Your task to perform on an android device: Open accessibility settings Image 0: 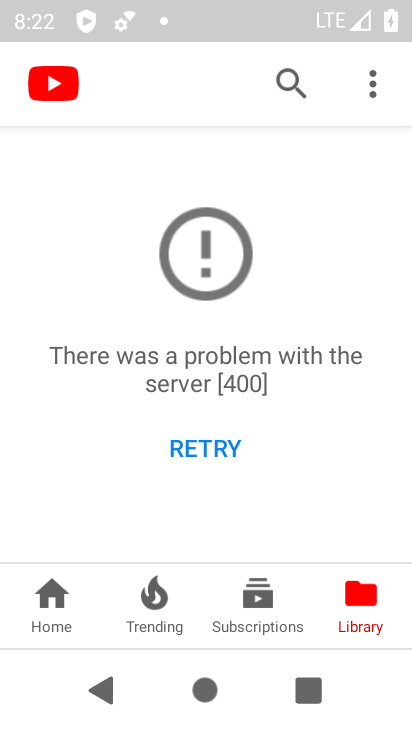
Step 0: press home button
Your task to perform on an android device: Open accessibility settings Image 1: 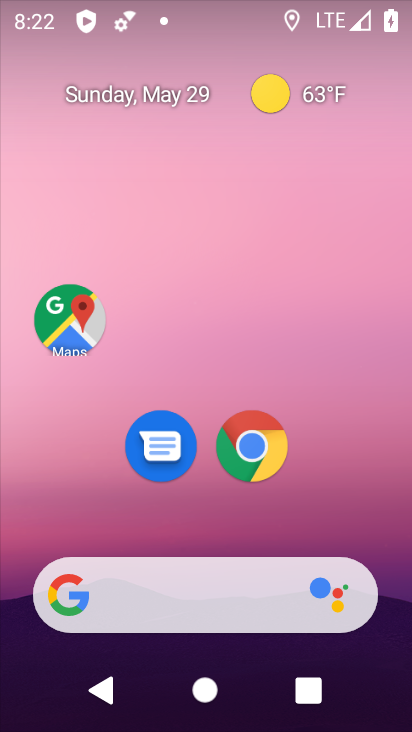
Step 1: drag from (190, 527) to (206, 116)
Your task to perform on an android device: Open accessibility settings Image 2: 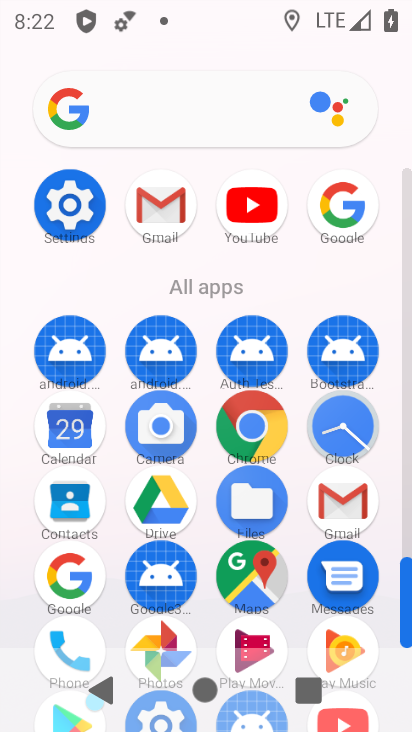
Step 2: click (47, 231)
Your task to perform on an android device: Open accessibility settings Image 3: 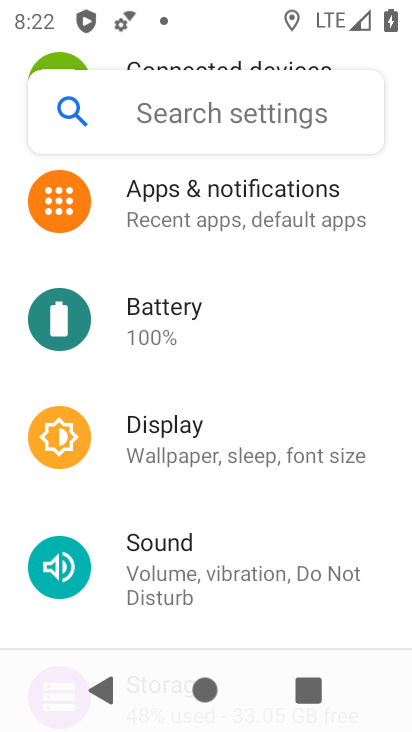
Step 3: drag from (260, 523) to (243, 182)
Your task to perform on an android device: Open accessibility settings Image 4: 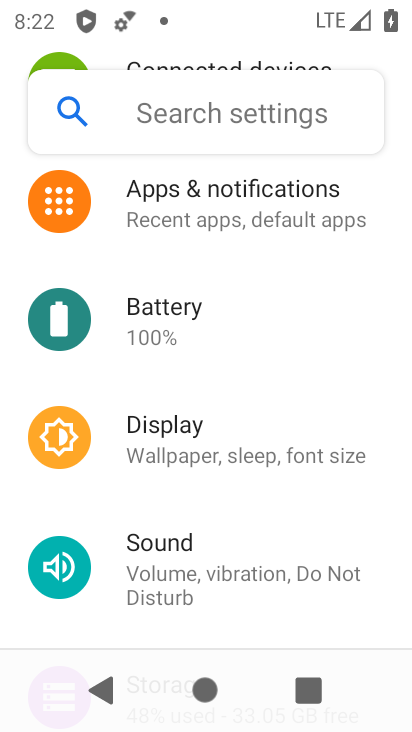
Step 4: drag from (235, 308) to (245, 515)
Your task to perform on an android device: Open accessibility settings Image 5: 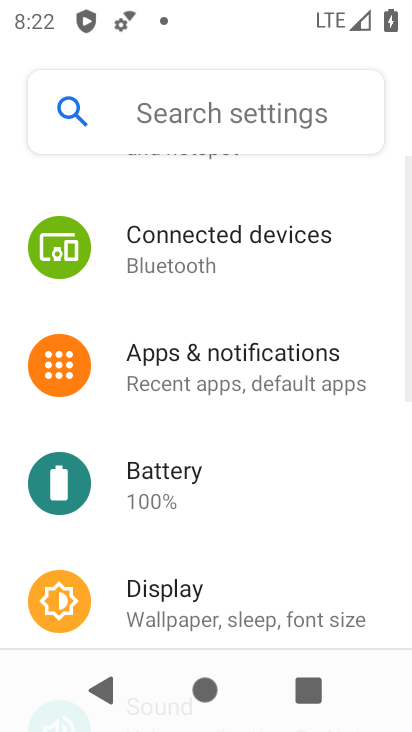
Step 5: drag from (216, 277) to (242, 139)
Your task to perform on an android device: Open accessibility settings Image 6: 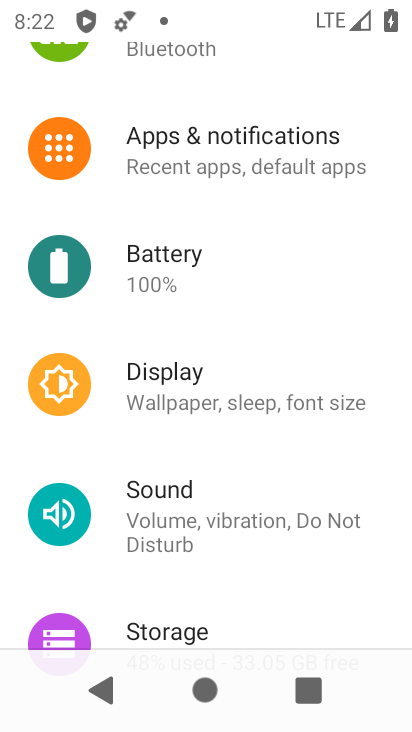
Step 6: drag from (229, 541) to (241, 215)
Your task to perform on an android device: Open accessibility settings Image 7: 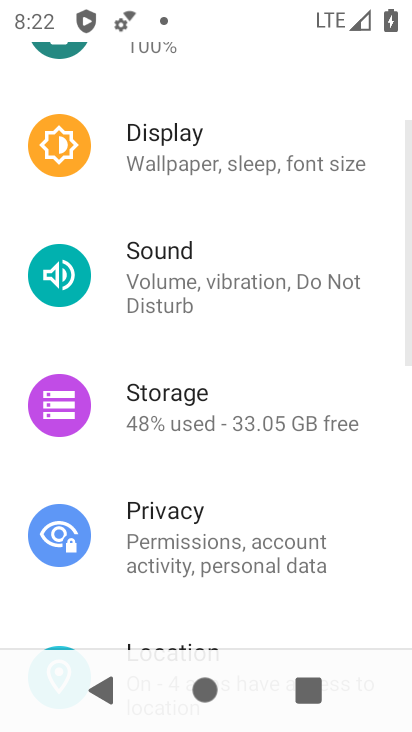
Step 7: drag from (227, 516) to (248, 327)
Your task to perform on an android device: Open accessibility settings Image 8: 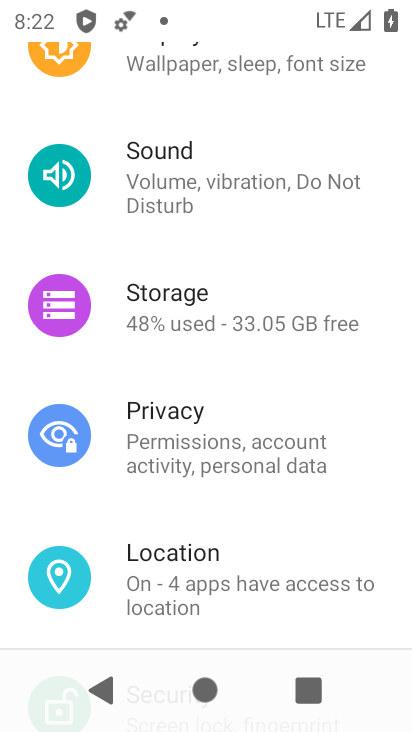
Step 8: drag from (262, 455) to (271, 207)
Your task to perform on an android device: Open accessibility settings Image 9: 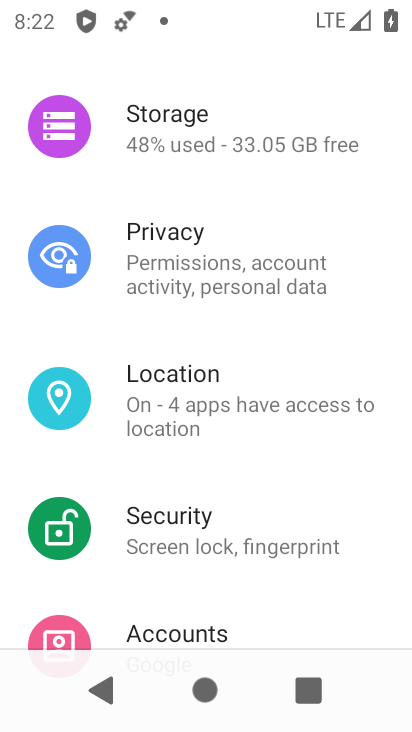
Step 9: drag from (270, 491) to (276, 208)
Your task to perform on an android device: Open accessibility settings Image 10: 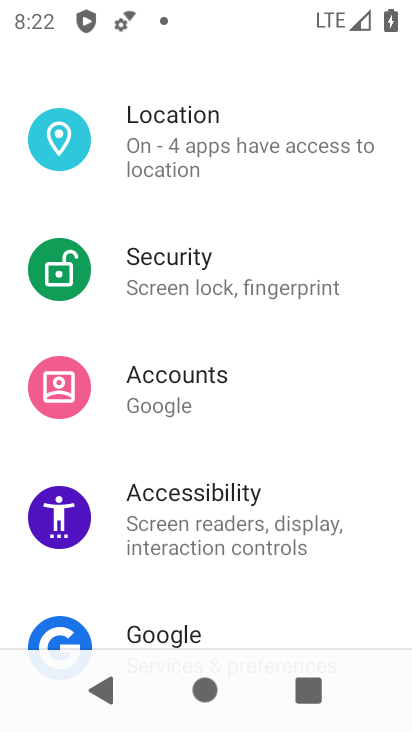
Step 10: click (235, 489)
Your task to perform on an android device: Open accessibility settings Image 11: 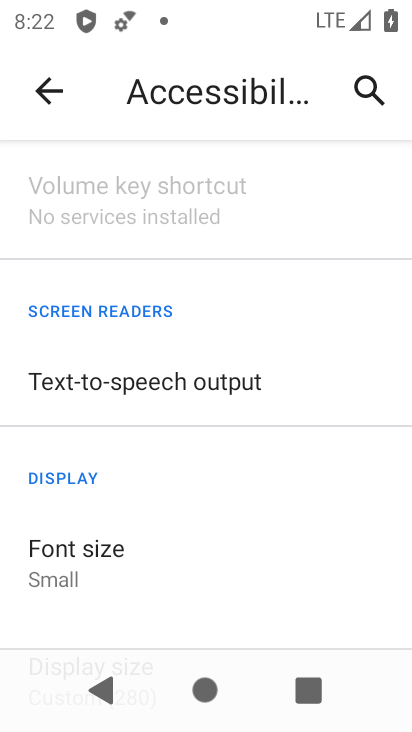
Step 11: task complete